Your task to perform on an android device: Show the shopping cart on newegg.com. Image 0: 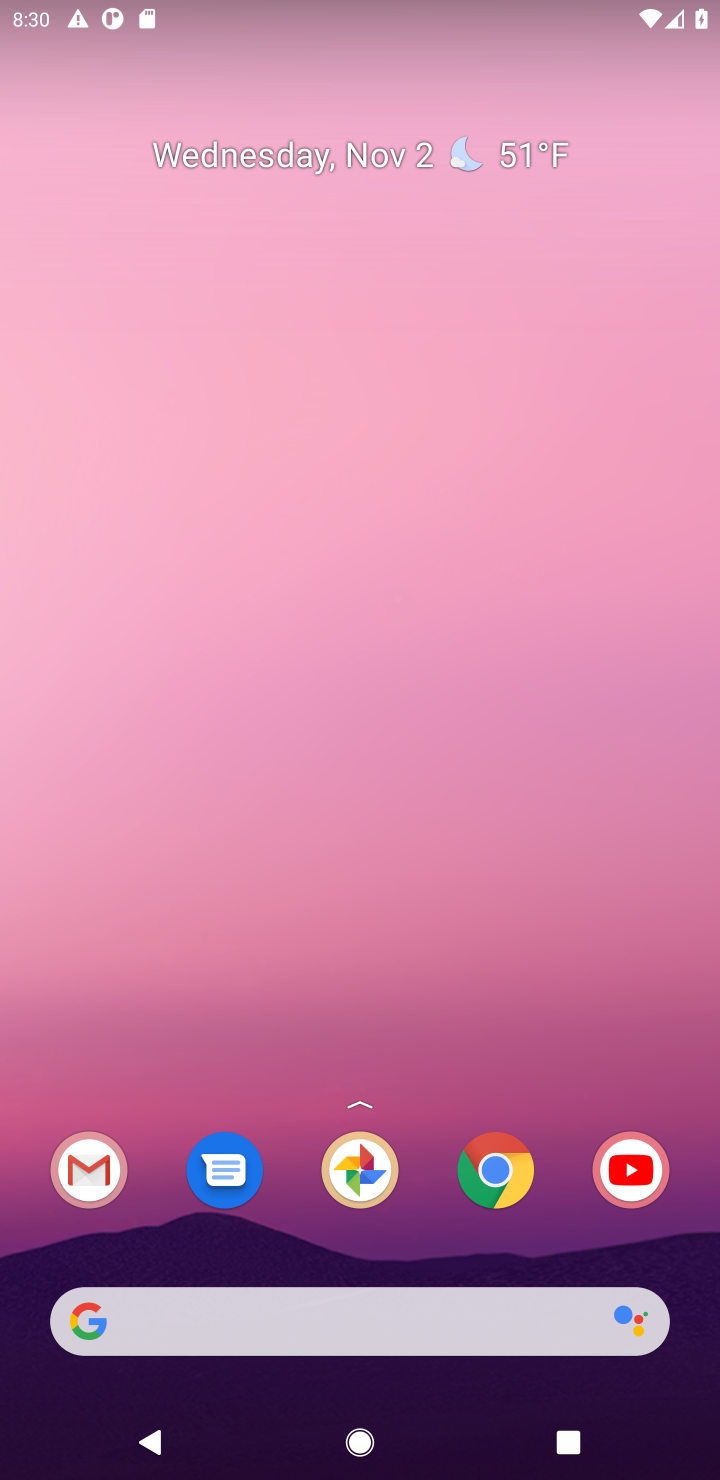
Step 0: click (508, 1173)
Your task to perform on an android device: Show the shopping cart on newegg.com. Image 1: 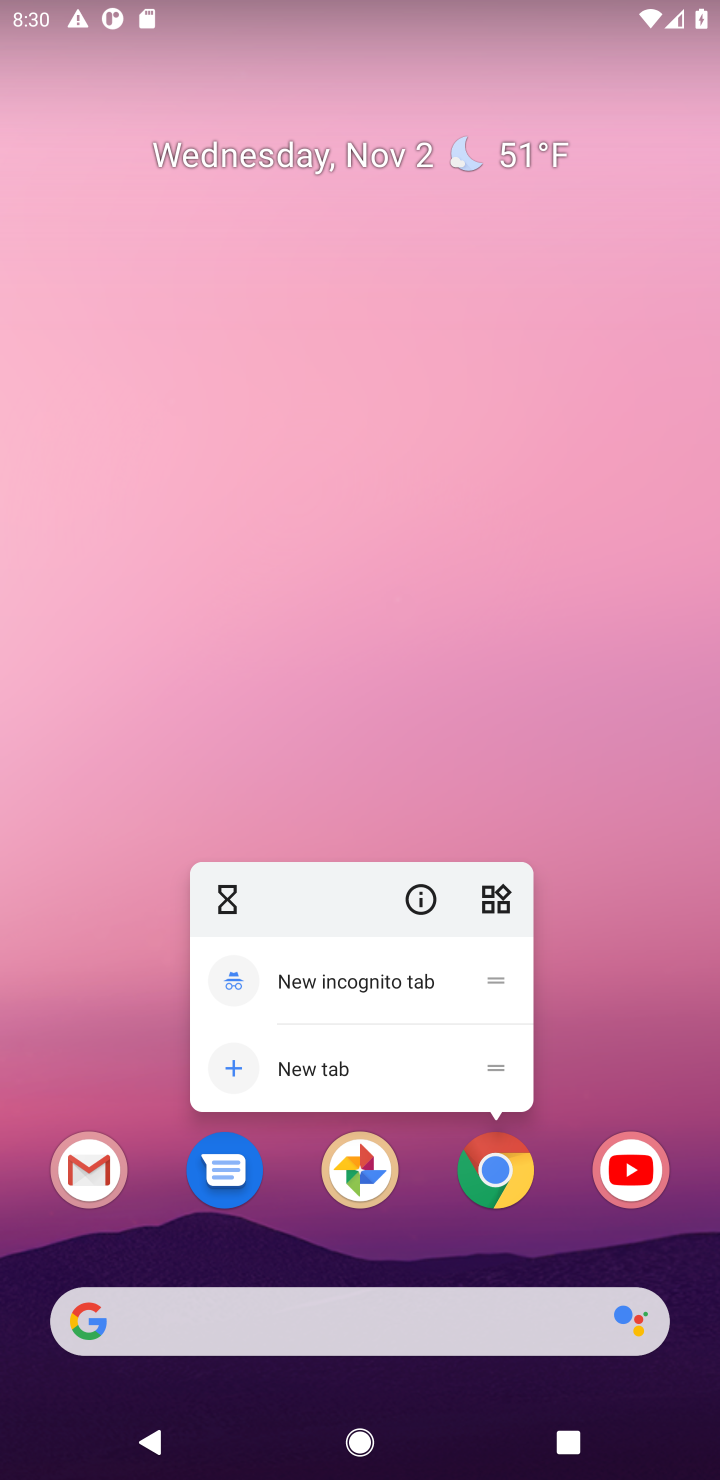
Step 1: click (534, 1189)
Your task to perform on an android device: Show the shopping cart on newegg.com. Image 2: 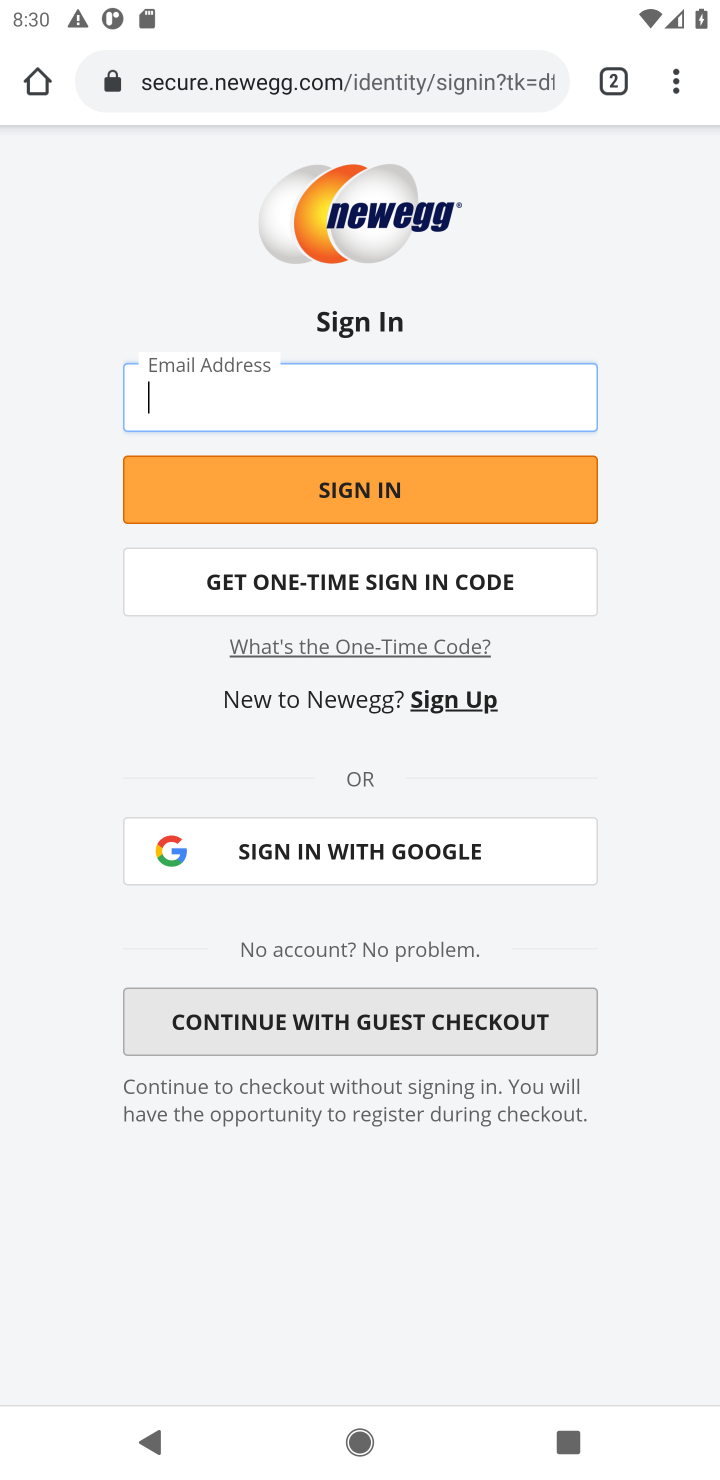
Step 2: click (271, 84)
Your task to perform on an android device: Show the shopping cart on newegg.com. Image 3: 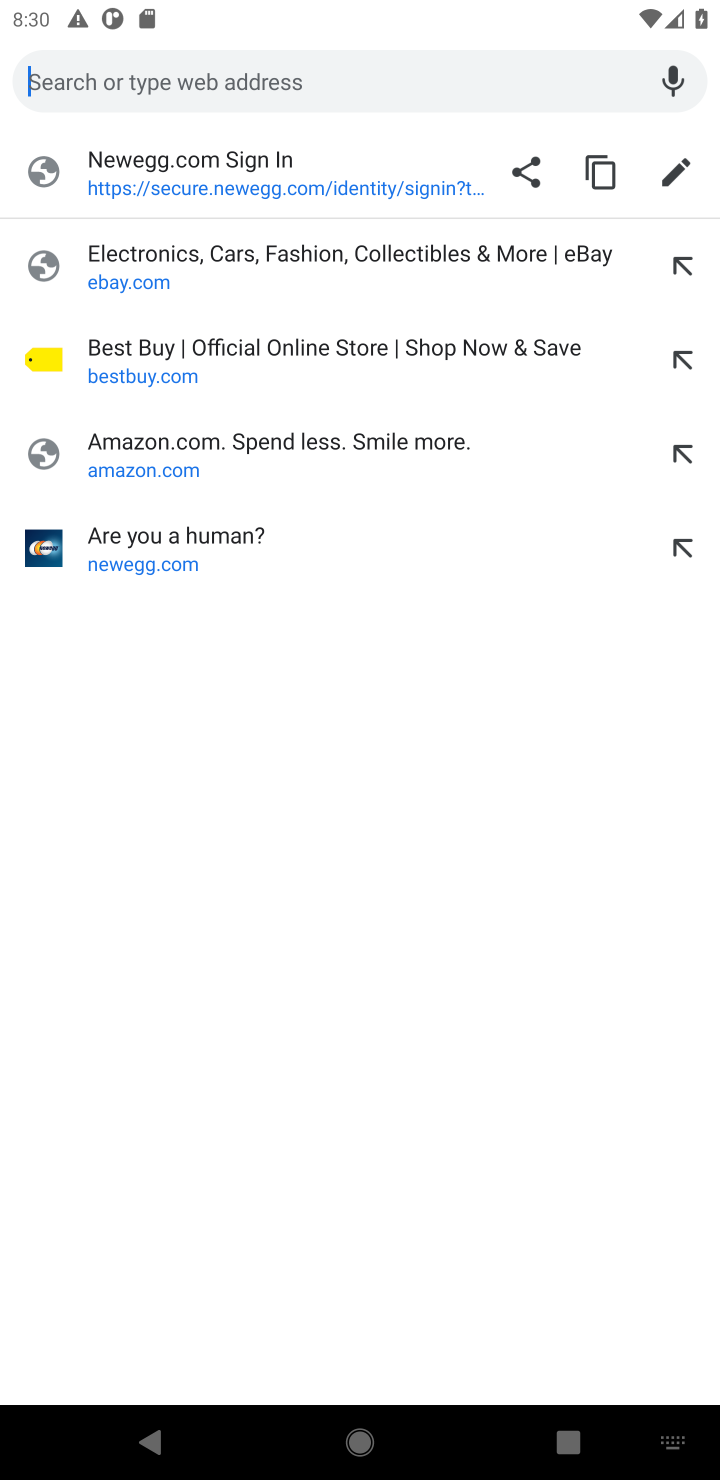
Step 3: type "newegg.com"
Your task to perform on an android device: Show the shopping cart on newegg.com. Image 4: 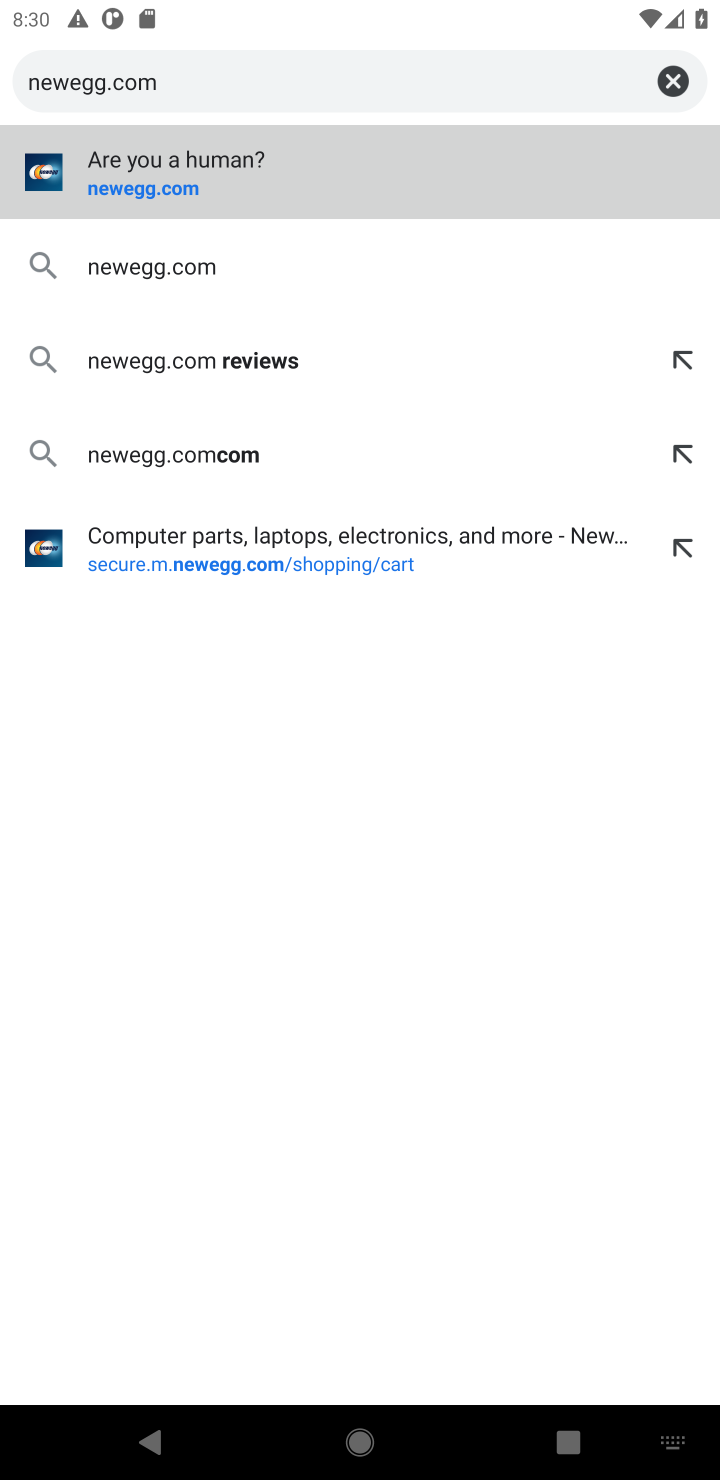
Step 4: type ""
Your task to perform on an android device: Show the shopping cart on newegg.com. Image 5: 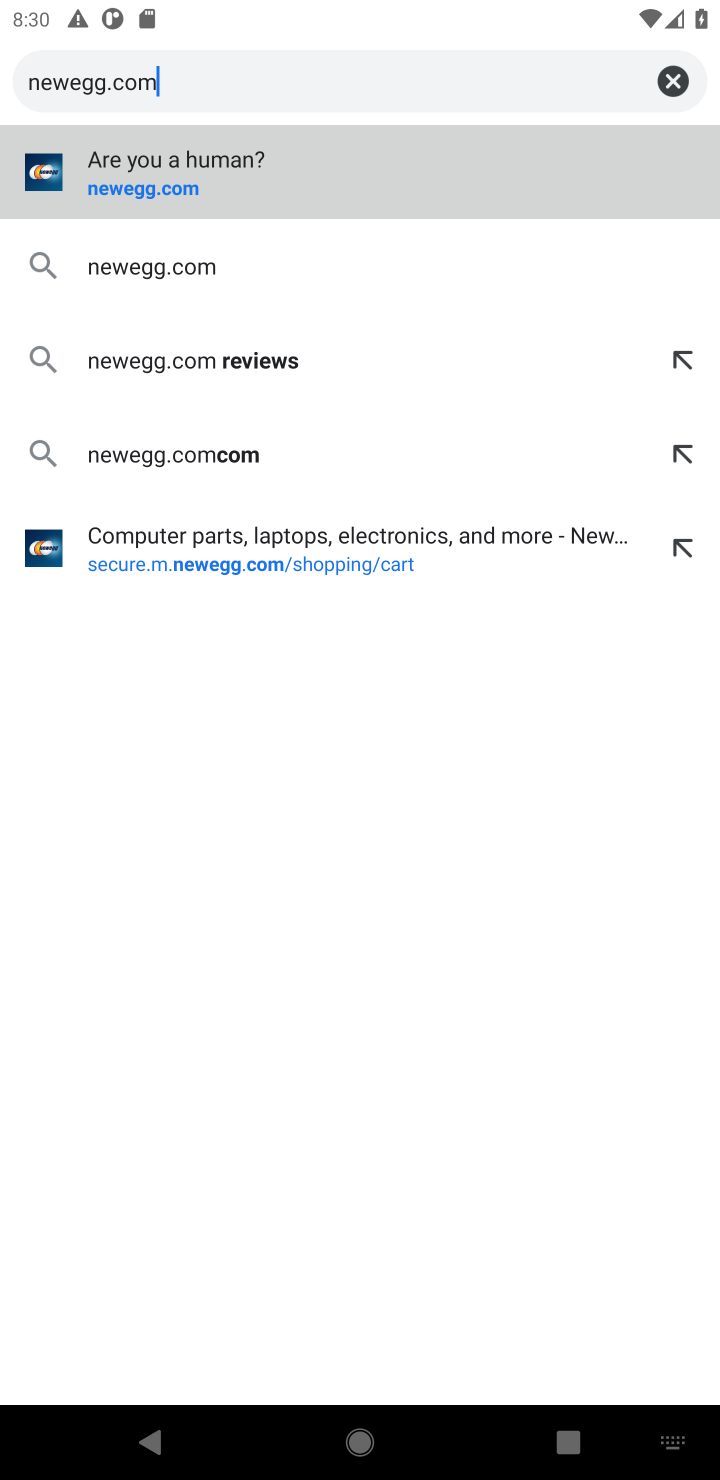
Step 5: press enter
Your task to perform on an android device: Show the shopping cart on newegg.com. Image 6: 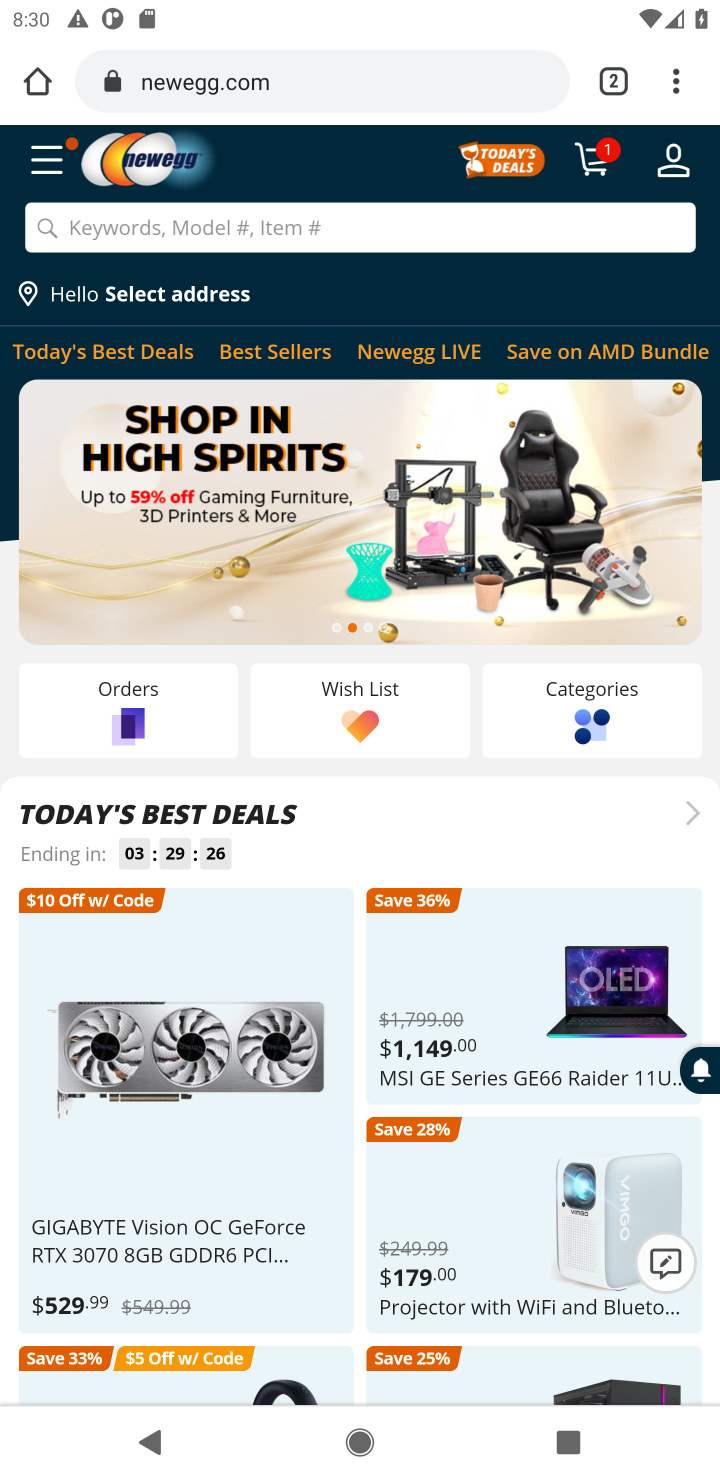
Step 6: click (606, 173)
Your task to perform on an android device: Show the shopping cart on newegg.com. Image 7: 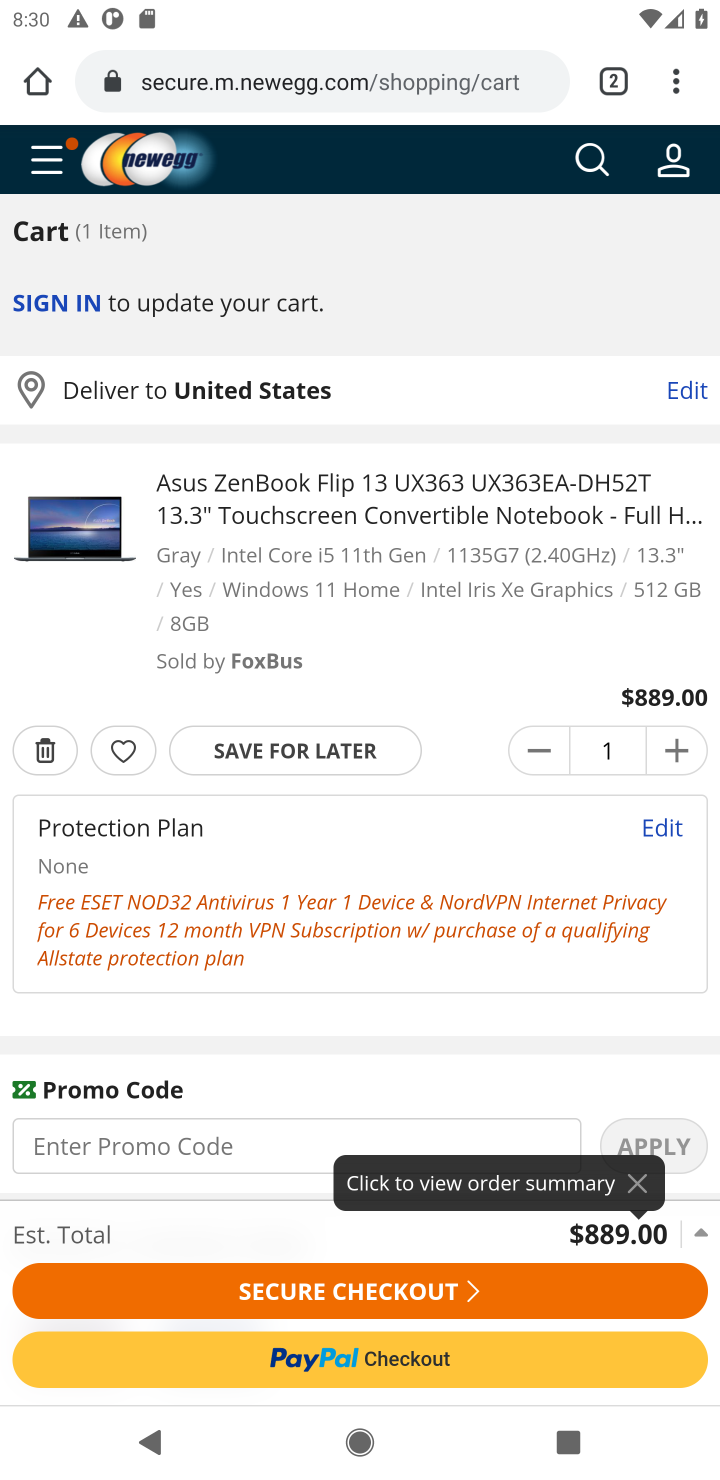
Step 7: task complete